Your task to perform on an android device: turn on showing notifications on the lock screen Image 0: 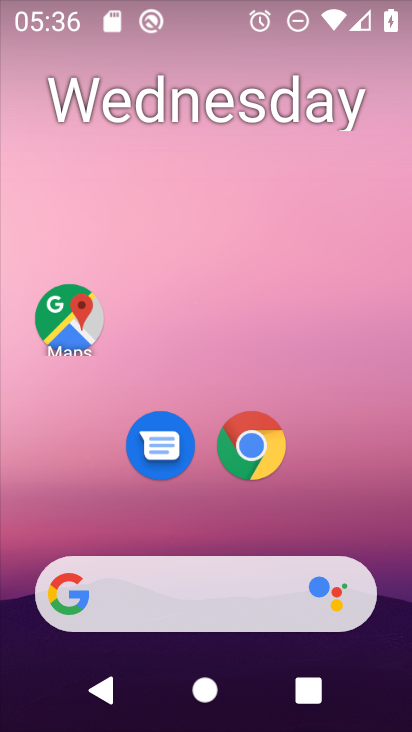
Step 0: drag from (203, 508) to (153, 87)
Your task to perform on an android device: turn on showing notifications on the lock screen Image 1: 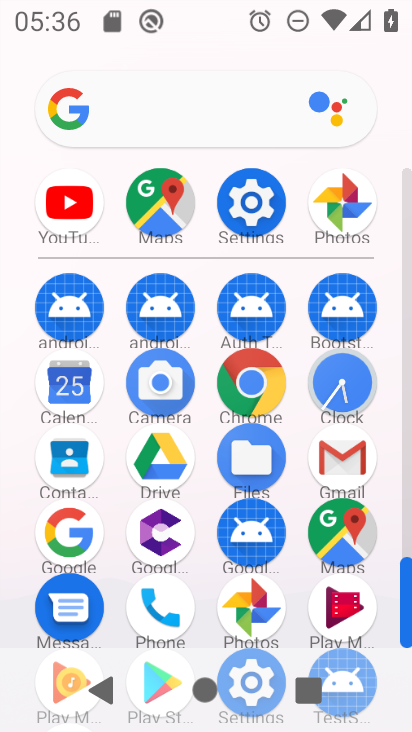
Step 1: click (259, 208)
Your task to perform on an android device: turn on showing notifications on the lock screen Image 2: 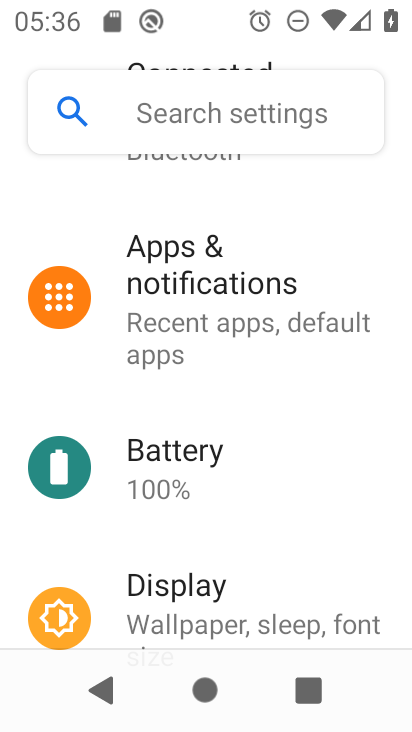
Step 2: click (196, 309)
Your task to perform on an android device: turn on showing notifications on the lock screen Image 3: 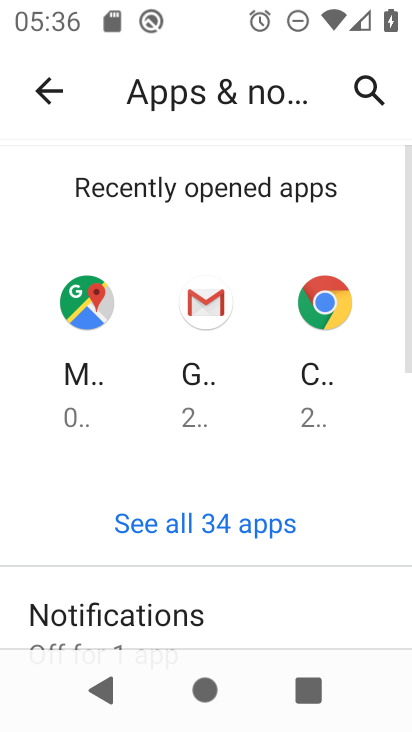
Step 3: drag from (164, 612) to (227, 362)
Your task to perform on an android device: turn on showing notifications on the lock screen Image 4: 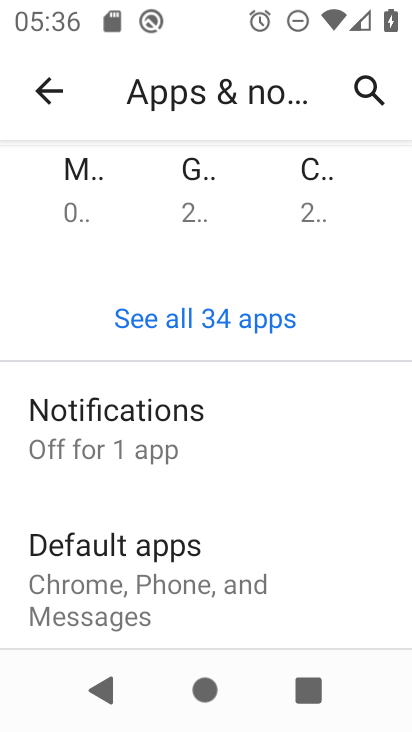
Step 4: click (125, 481)
Your task to perform on an android device: turn on showing notifications on the lock screen Image 5: 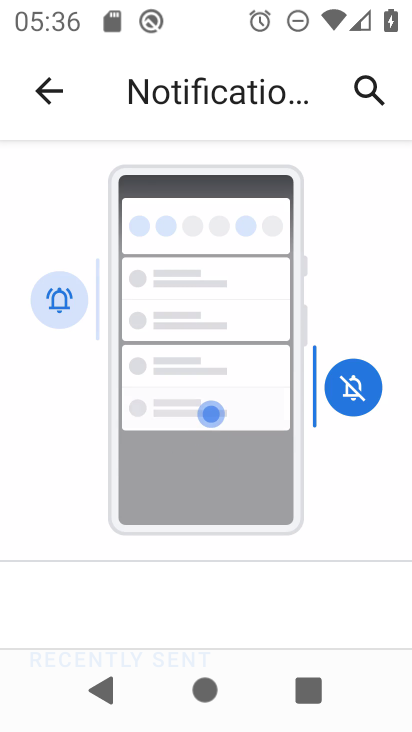
Step 5: drag from (65, 615) to (212, 154)
Your task to perform on an android device: turn on showing notifications on the lock screen Image 6: 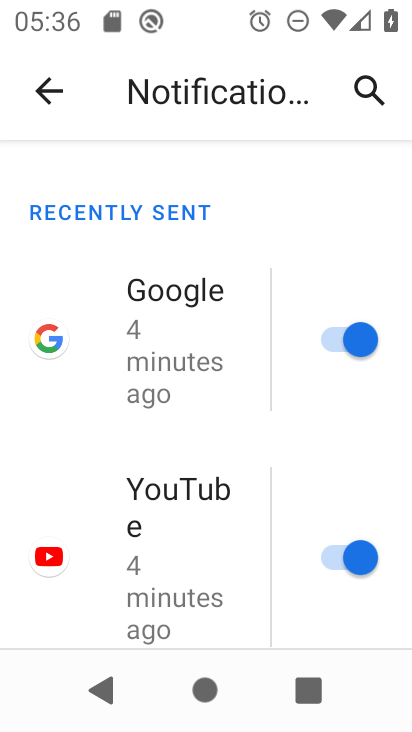
Step 6: drag from (38, 619) to (211, 18)
Your task to perform on an android device: turn on showing notifications on the lock screen Image 7: 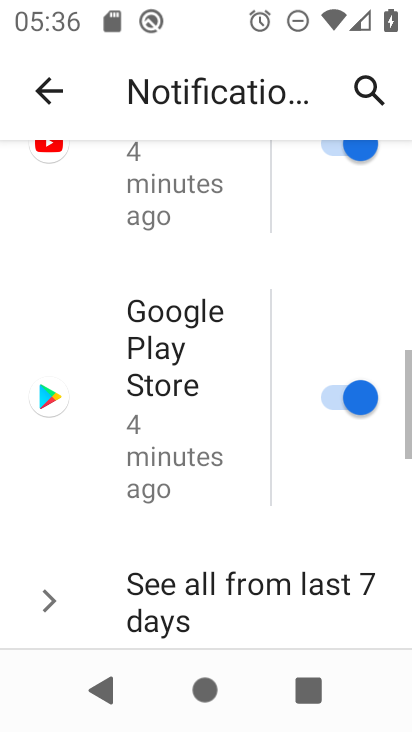
Step 7: drag from (77, 555) to (146, 278)
Your task to perform on an android device: turn on showing notifications on the lock screen Image 8: 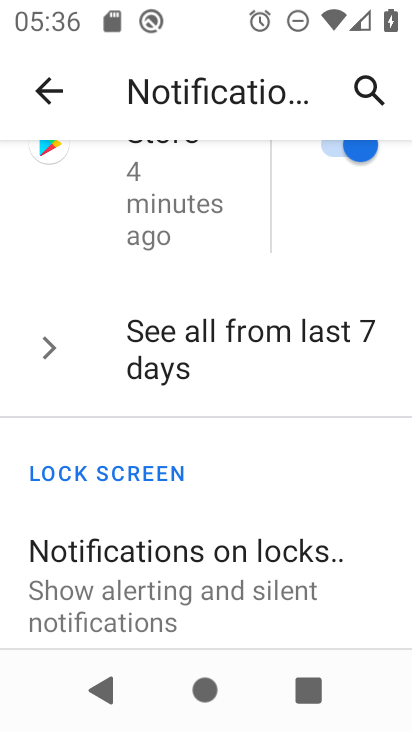
Step 8: click (162, 544)
Your task to perform on an android device: turn on showing notifications on the lock screen Image 9: 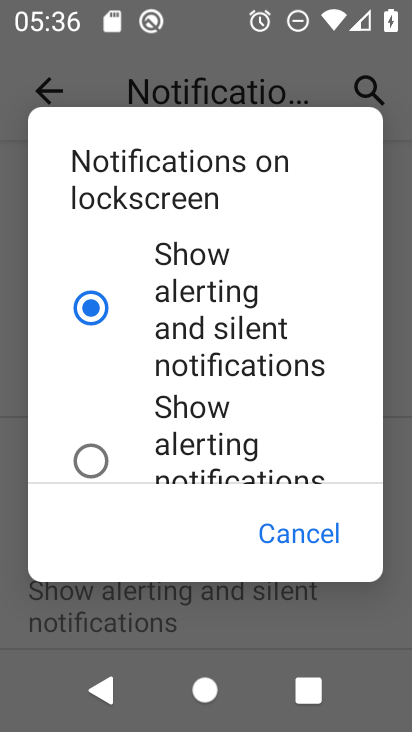
Step 9: task complete